Your task to perform on an android device: turn on javascript in the chrome app Image 0: 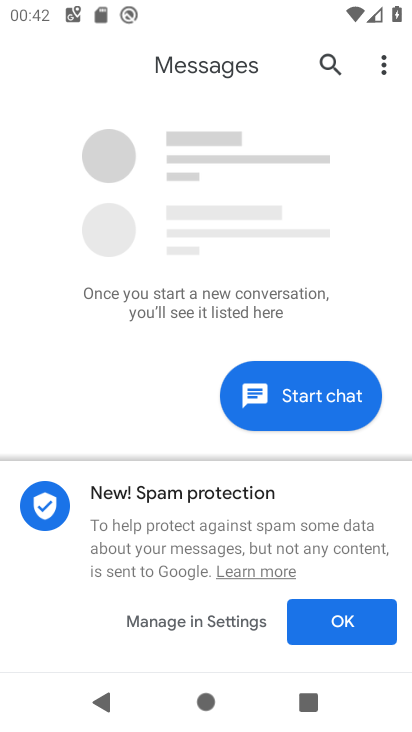
Step 0: press home button
Your task to perform on an android device: turn on javascript in the chrome app Image 1: 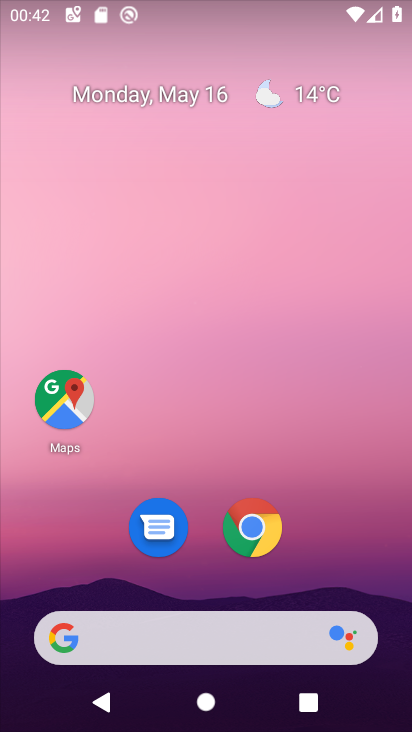
Step 1: click (251, 542)
Your task to perform on an android device: turn on javascript in the chrome app Image 2: 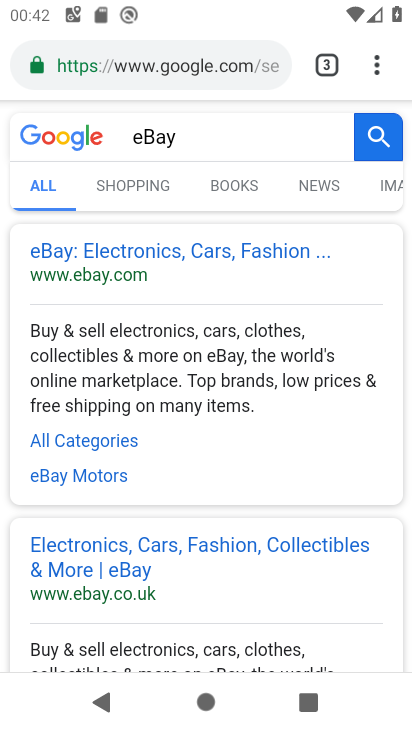
Step 2: click (372, 57)
Your task to perform on an android device: turn on javascript in the chrome app Image 3: 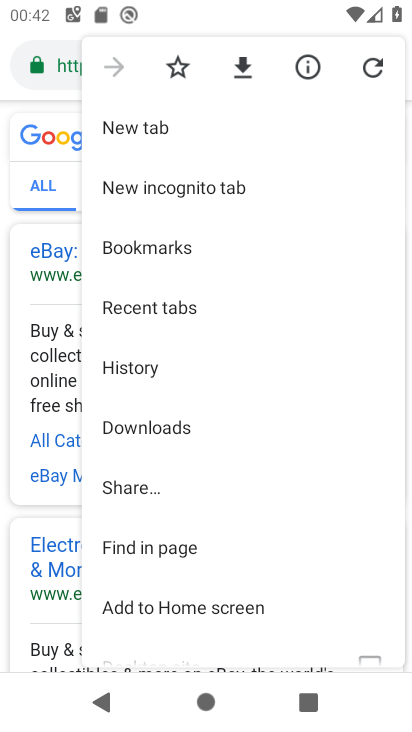
Step 3: drag from (170, 578) to (192, 253)
Your task to perform on an android device: turn on javascript in the chrome app Image 4: 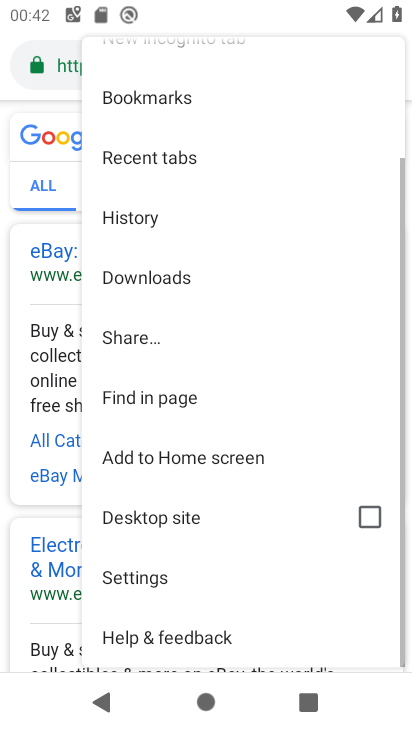
Step 4: click (140, 591)
Your task to perform on an android device: turn on javascript in the chrome app Image 5: 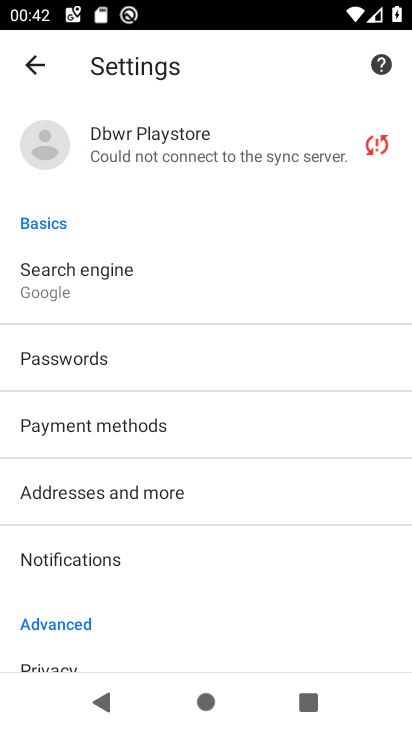
Step 5: drag from (151, 561) to (183, 239)
Your task to perform on an android device: turn on javascript in the chrome app Image 6: 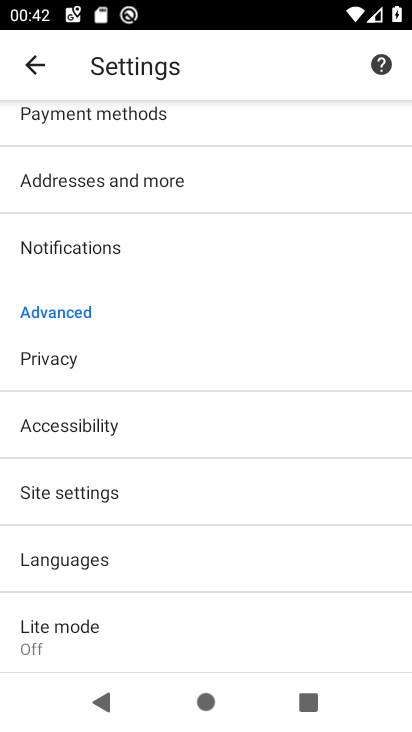
Step 6: drag from (94, 579) to (132, 282)
Your task to perform on an android device: turn on javascript in the chrome app Image 7: 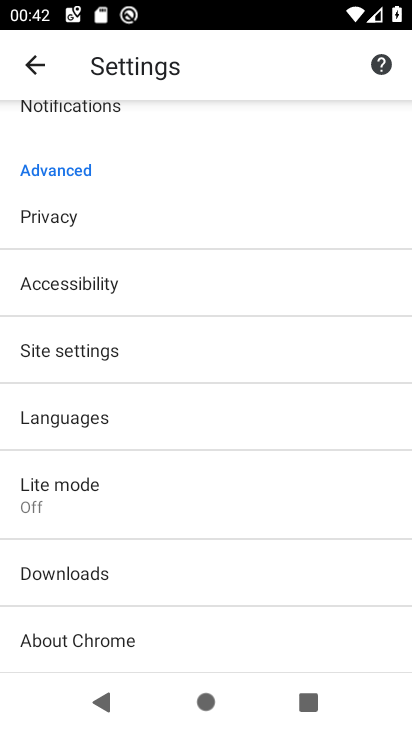
Step 7: click (78, 355)
Your task to perform on an android device: turn on javascript in the chrome app Image 8: 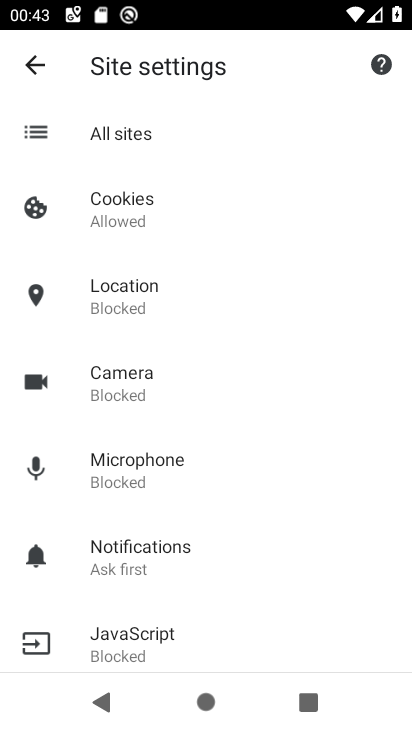
Step 8: drag from (140, 603) to (139, 465)
Your task to perform on an android device: turn on javascript in the chrome app Image 9: 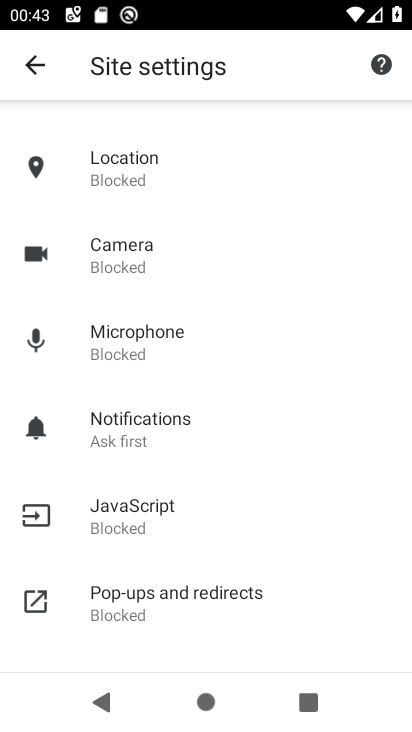
Step 9: click (131, 515)
Your task to perform on an android device: turn on javascript in the chrome app Image 10: 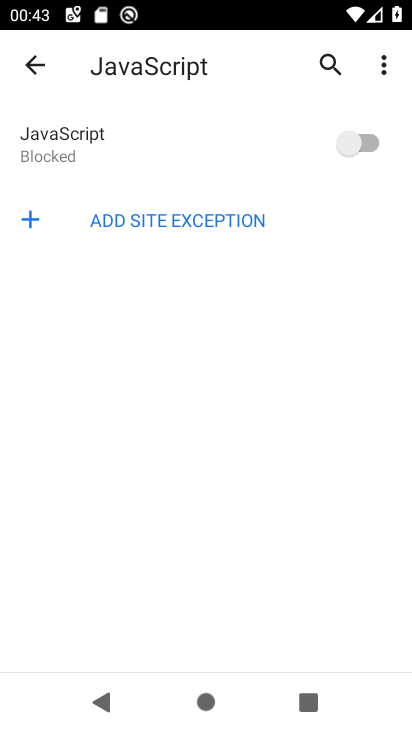
Step 10: click (370, 144)
Your task to perform on an android device: turn on javascript in the chrome app Image 11: 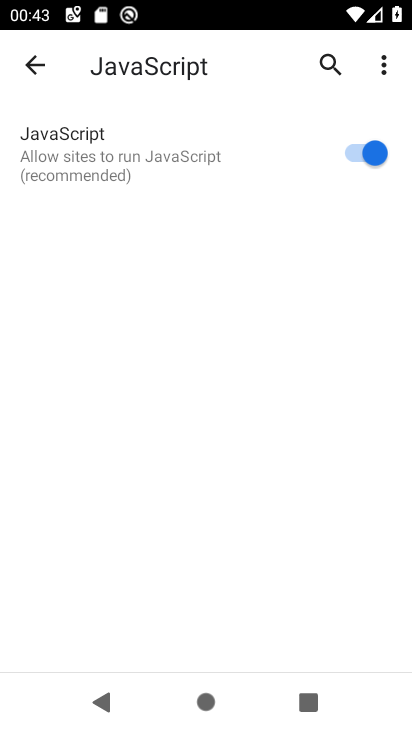
Step 11: task complete